Your task to perform on an android device: Open the calendar and show me this week's events? Image 0: 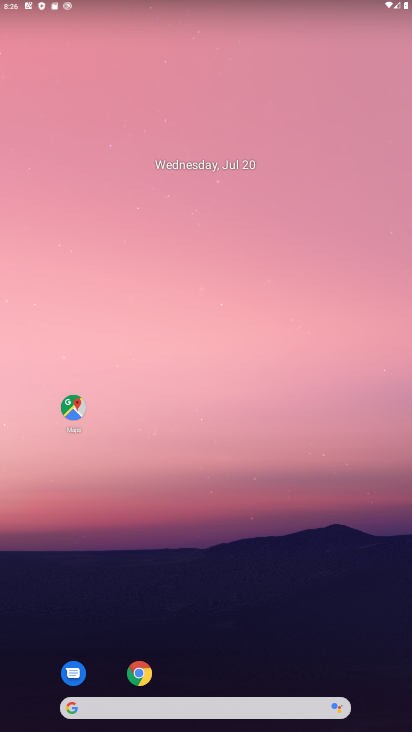
Step 0: drag from (194, 665) to (334, 0)
Your task to perform on an android device: Open the calendar and show me this week's events? Image 1: 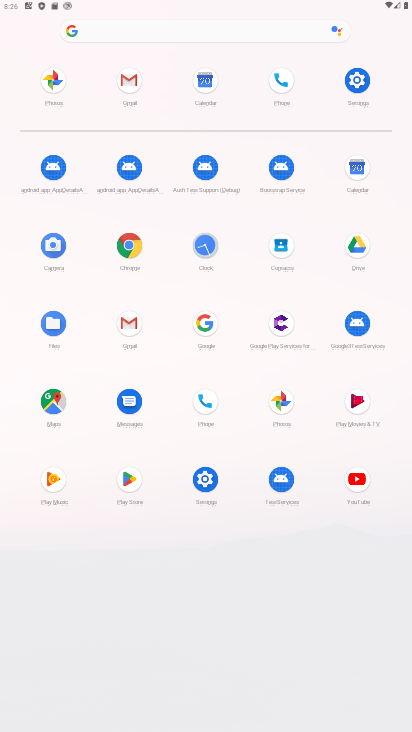
Step 1: click (355, 166)
Your task to perform on an android device: Open the calendar and show me this week's events? Image 2: 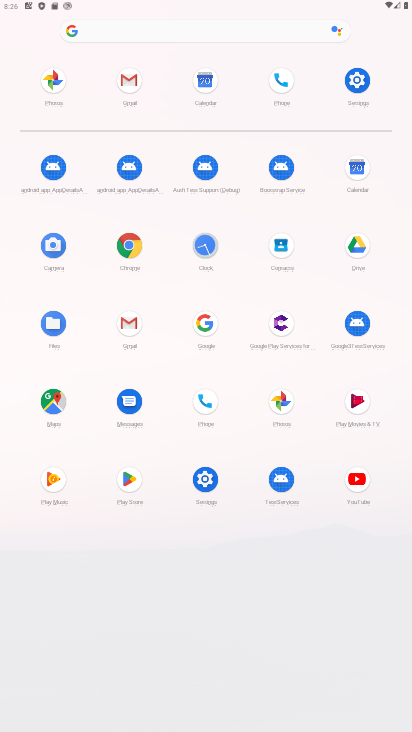
Step 2: click (355, 166)
Your task to perform on an android device: Open the calendar and show me this week's events? Image 3: 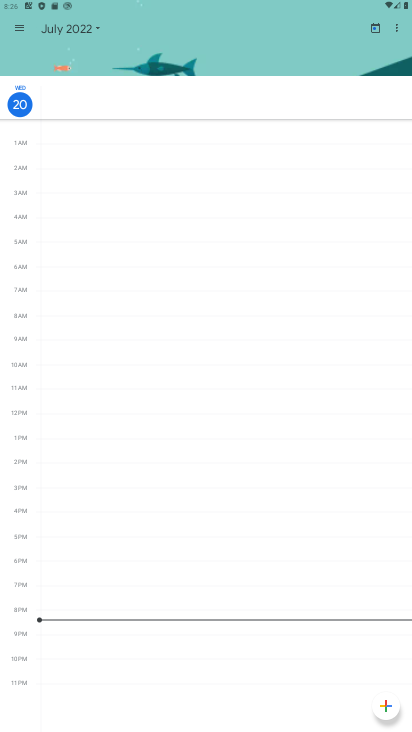
Step 3: click (74, 30)
Your task to perform on an android device: Open the calendar and show me this week's events? Image 4: 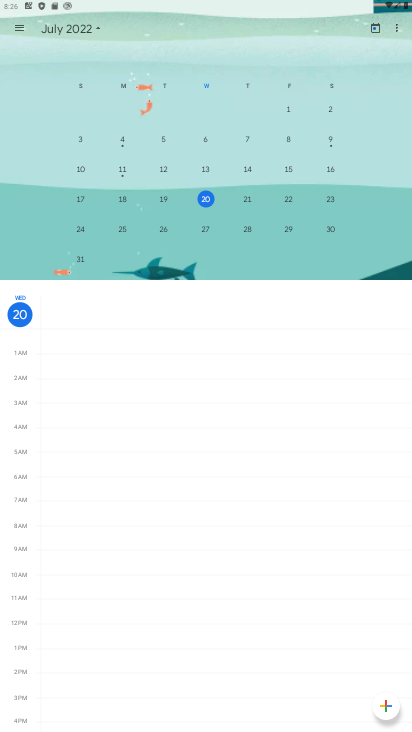
Step 4: drag from (101, 437) to (171, 126)
Your task to perform on an android device: Open the calendar and show me this week's events? Image 5: 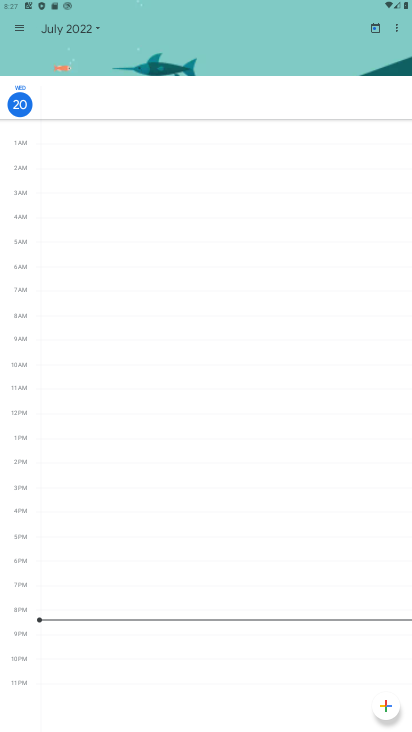
Step 5: click (70, 27)
Your task to perform on an android device: Open the calendar and show me this week's events? Image 6: 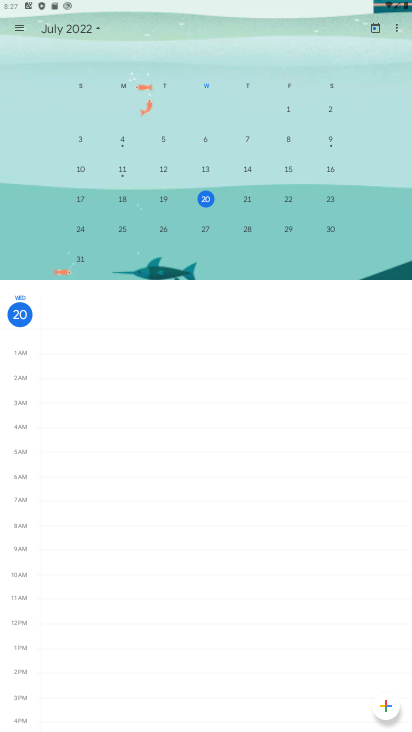
Step 6: click (332, 199)
Your task to perform on an android device: Open the calendar and show me this week's events? Image 7: 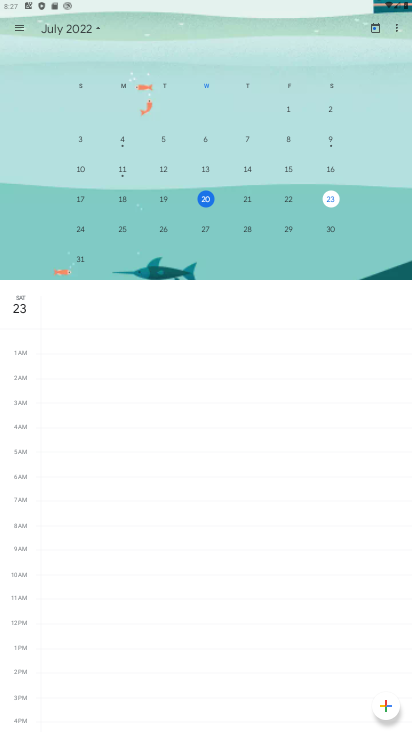
Step 7: task complete